Your task to perform on an android device: Go to privacy settings Image 0: 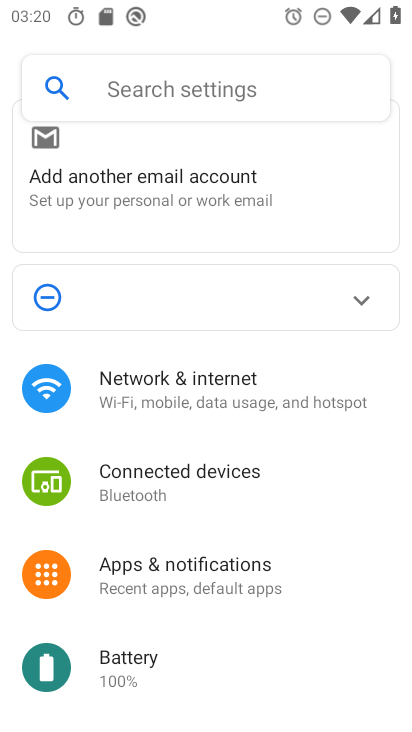
Step 0: press home button
Your task to perform on an android device: Go to privacy settings Image 1: 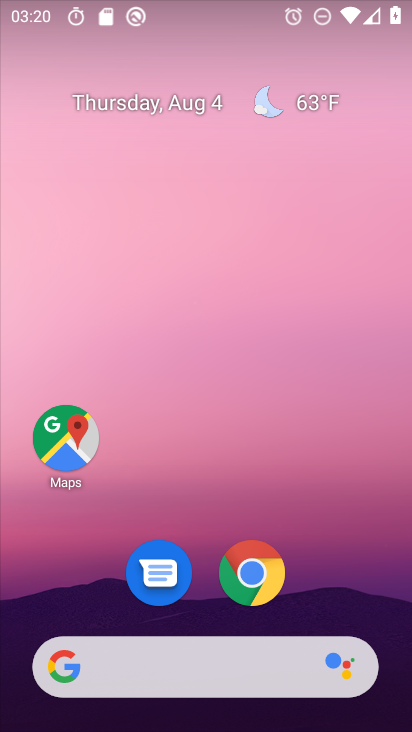
Step 1: drag from (356, 582) to (282, 132)
Your task to perform on an android device: Go to privacy settings Image 2: 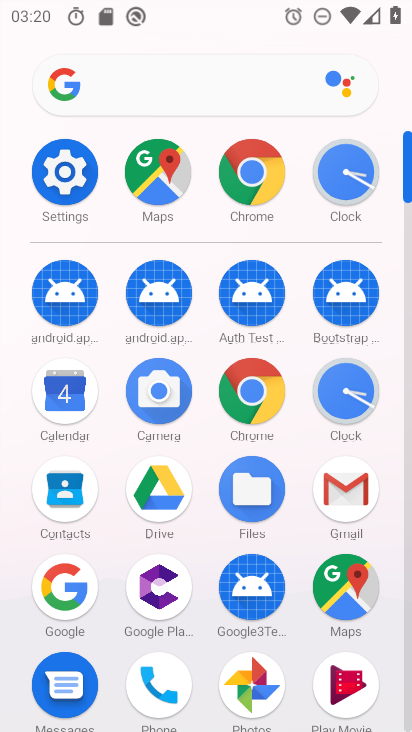
Step 2: click (73, 184)
Your task to perform on an android device: Go to privacy settings Image 3: 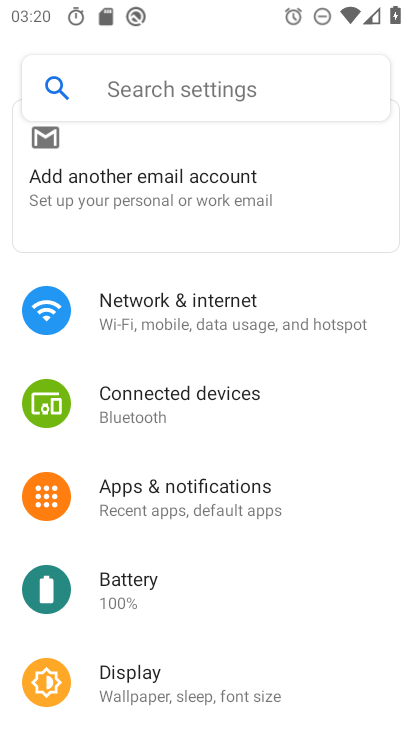
Step 3: drag from (282, 594) to (302, 14)
Your task to perform on an android device: Go to privacy settings Image 4: 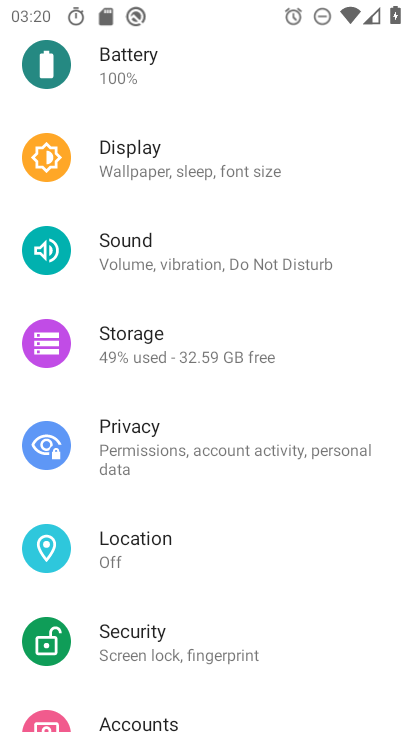
Step 4: click (99, 445)
Your task to perform on an android device: Go to privacy settings Image 5: 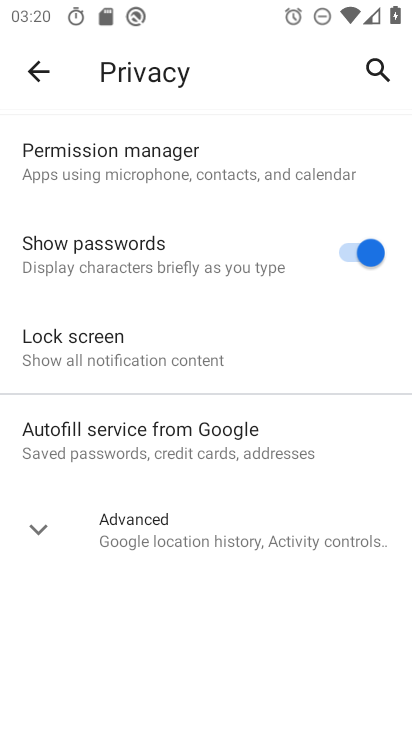
Step 5: task complete